Your task to perform on an android device: read, delete, or share a saved page in the chrome app Image 0: 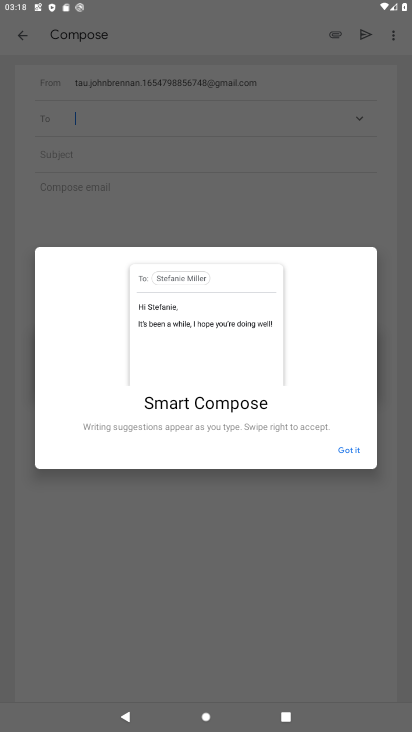
Step 0: press home button
Your task to perform on an android device: read, delete, or share a saved page in the chrome app Image 1: 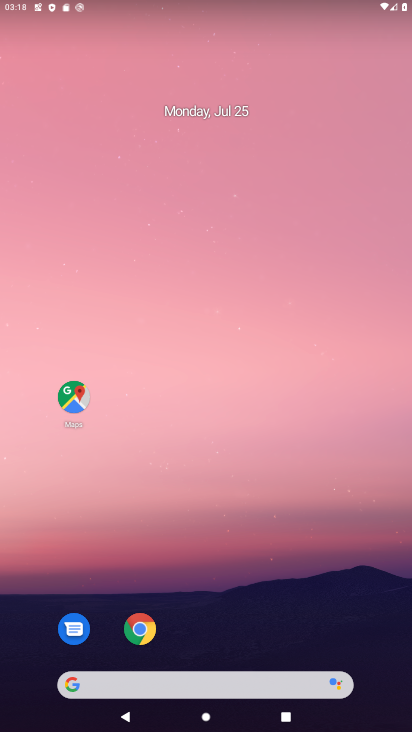
Step 1: click (145, 641)
Your task to perform on an android device: read, delete, or share a saved page in the chrome app Image 2: 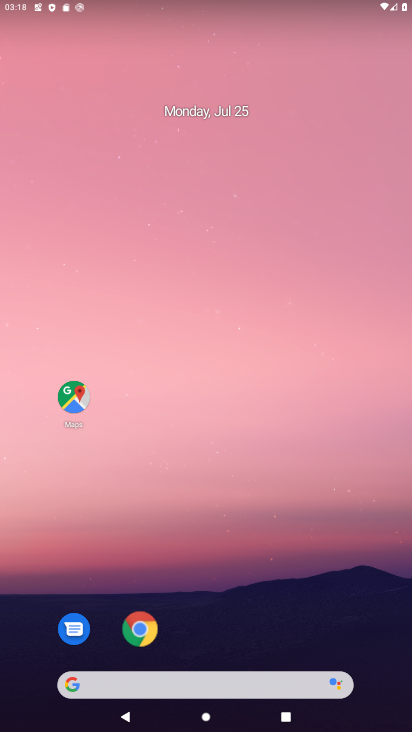
Step 2: click (145, 641)
Your task to perform on an android device: read, delete, or share a saved page in the chrome app Image 3: 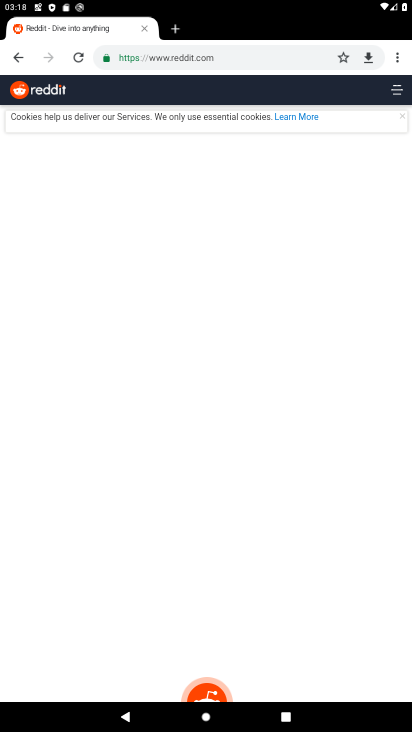
Step 3: click (400, 50)
Your task to perform on an android device: read, delete, or share a saved page in the chrome app Image 4: 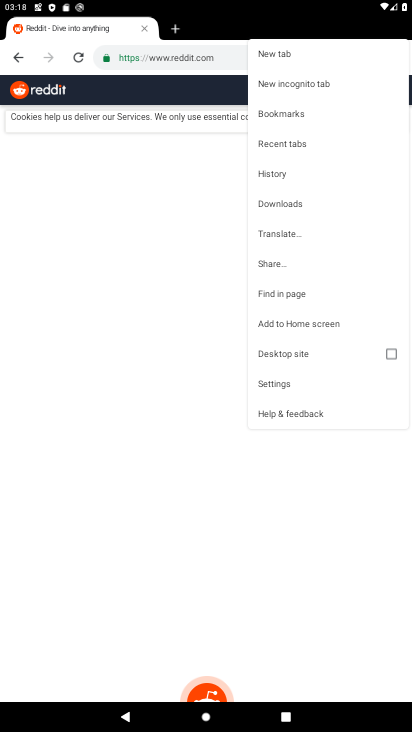
Step 4: click (278, 206)
Your task to perform on an android device: read, delete, or share a saved page in the chrome app Image 5: 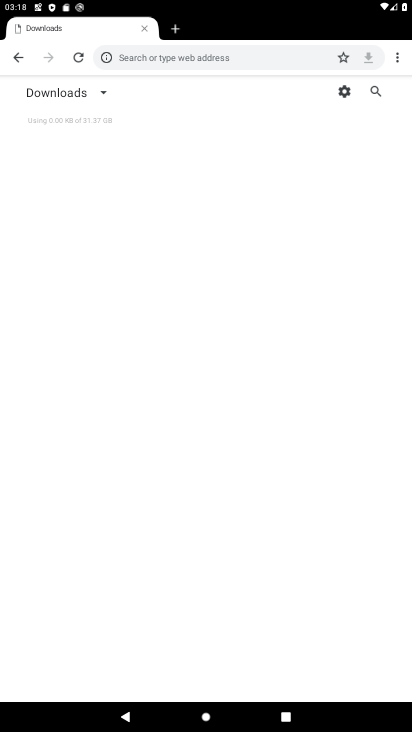
Step 5: click (106, 97)
Your task to perform on an android device: read, delete, or share a saved page in the chrome app Image 6: 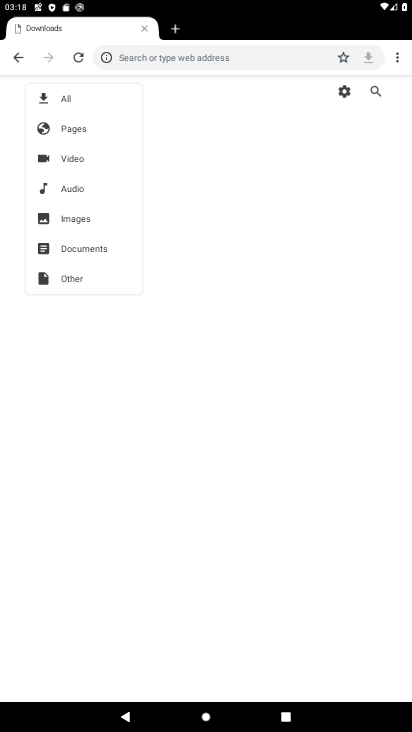
Step 6: click (79, 137)
Your task to perform on an android device: read, delete, or share a saved page in the chrome app Image 7: 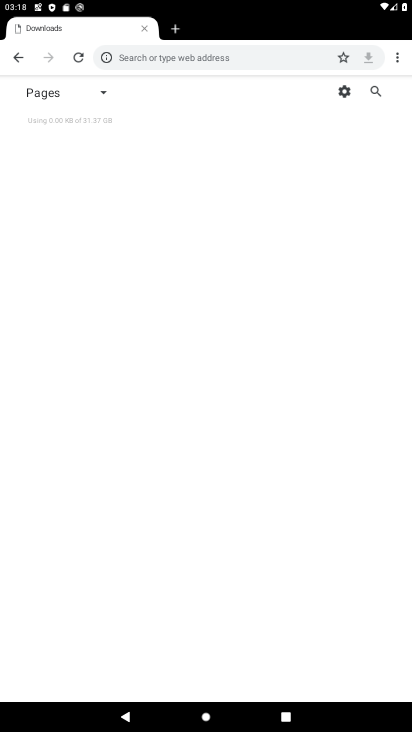
Step 7: task complete